Your task to perform on an android device: Search for the best movies of 2019  Image 0: 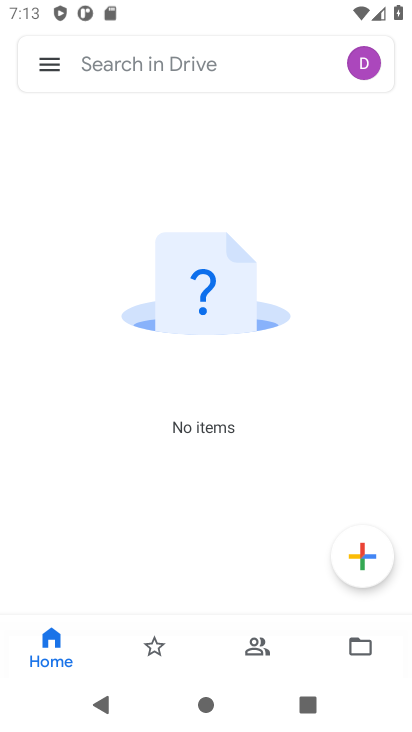
Step 0: press home button
Your task to perform on an android device: Search for the best movies of 2019  Image 1: 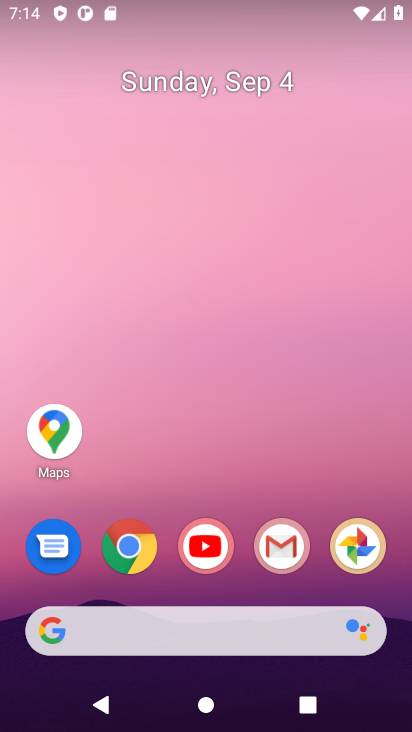
Step 1: click (130, 564)
Your task to perform on an android device: Search for the best movies of 2019  Image 2: 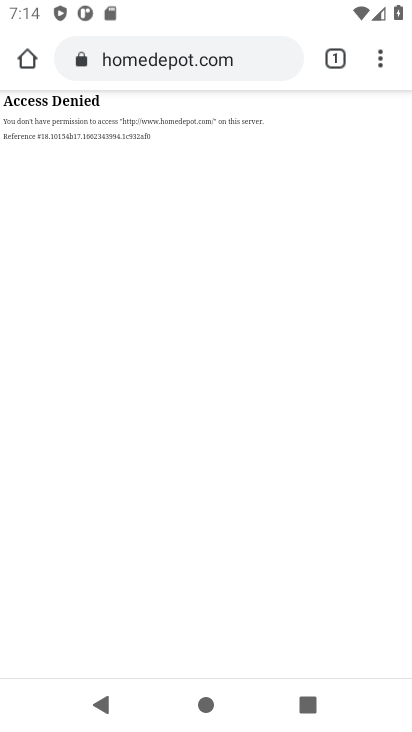
Step 2: click (149, 65)
Your task to perform on an android device: Search for the best movies of 2019  Image 3: 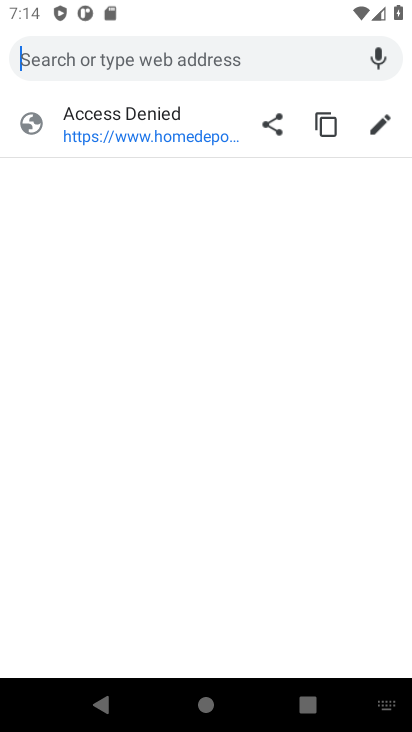
Step 3: type "best movies of 2019"
Your task to perform on an android device: Search for the best movies of 2019  Image 4: 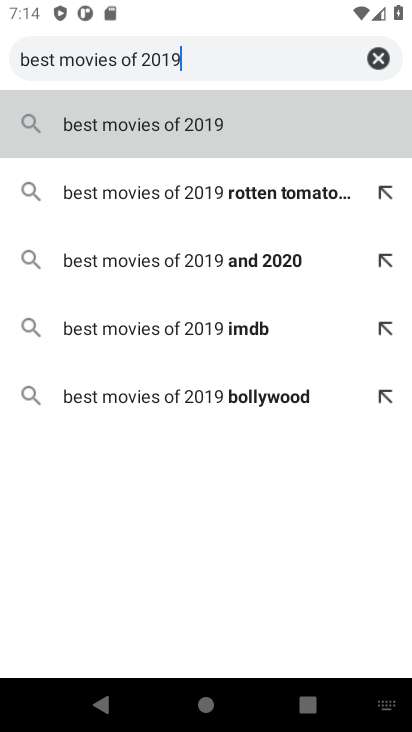
Step 4: click (184, 125)
Your task to perform on an android device: Search for the best movies of 2019  Image 5: 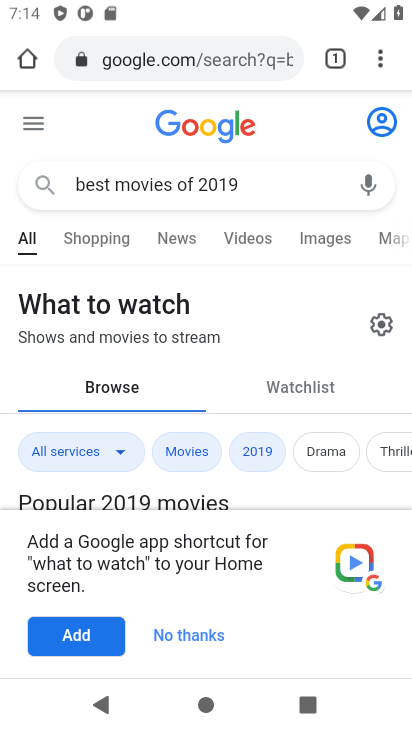
Step 5: click (177, 633)
Your task to perform on an android device: Search for the best movies of 2019  Image 6: 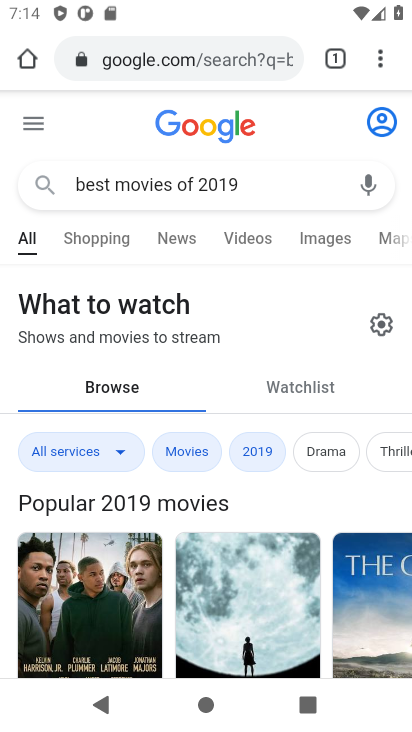
Step 6: task complete